Your task to perform on an android device: Open maps Image 0: 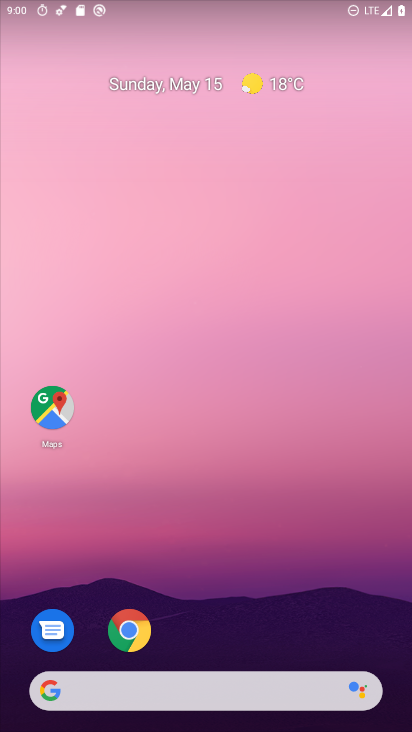
Step 0: drag from (179, 645) to (179, 186)
Your task to perform on an android device: Open maps Image 1: 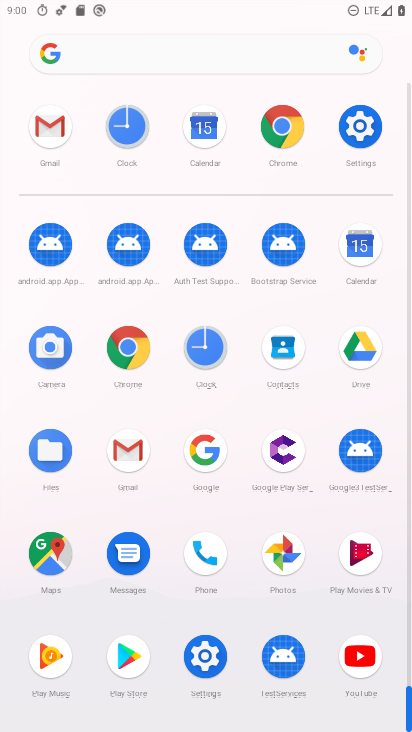
Step 1: click (48, 563)
Your task to perform on an android device: Open maps Image 2: 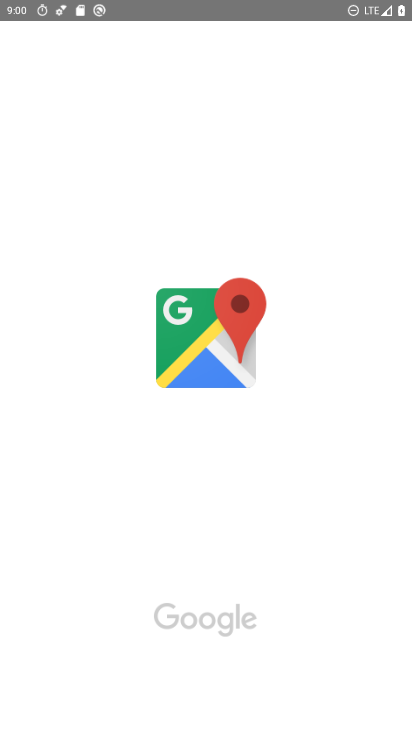
Step 2: task complete